Your task to perform on an android device: turn on bluetooth scan Image 0: 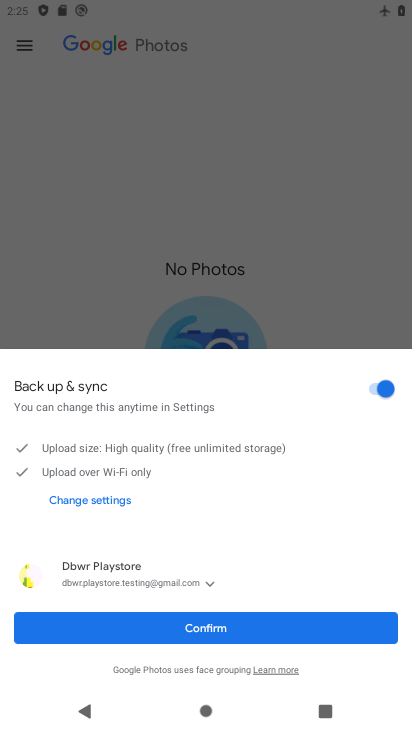
Step 0: press home button
Your task to perform on an android device: turn on bluetooth scan Image 1: 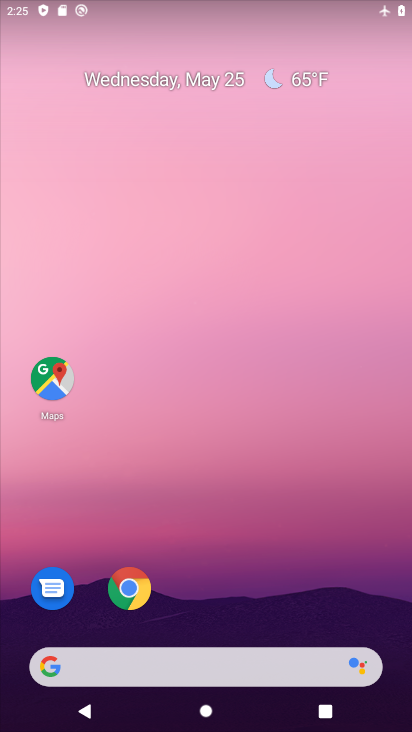
Step 1: drag from (217, 577) to (234, 162)
Your task to perform on an android device: turn on bluetooth scan Image 2: 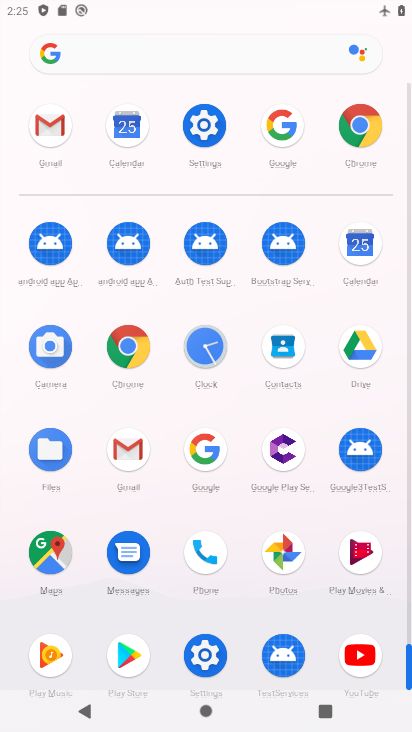
Step 2: click (198, 125)
Your task to perform on an android device: turn on bluetooth scan Image 3: 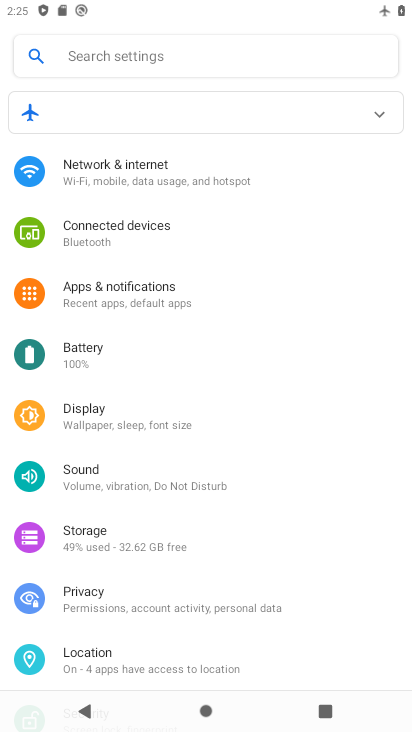
Step 3: drag from (140, 557) to (179, 299)
Your task to perform on an android device: turn on bluetooth scan Image 4: 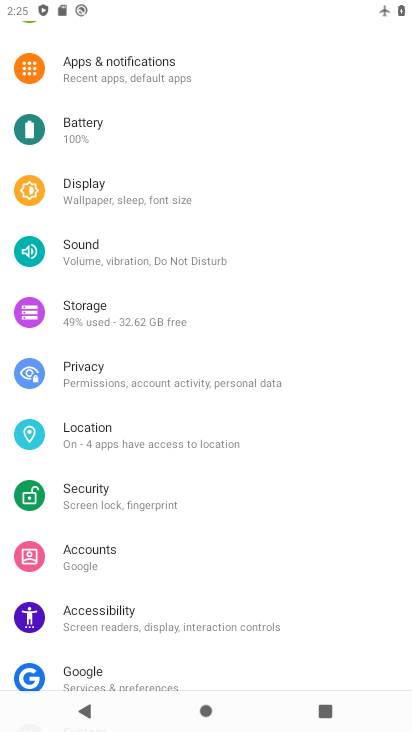
Step 4: click (143, 424)
Your task to perform on an android device: turn on bluetooth scan Image 5: 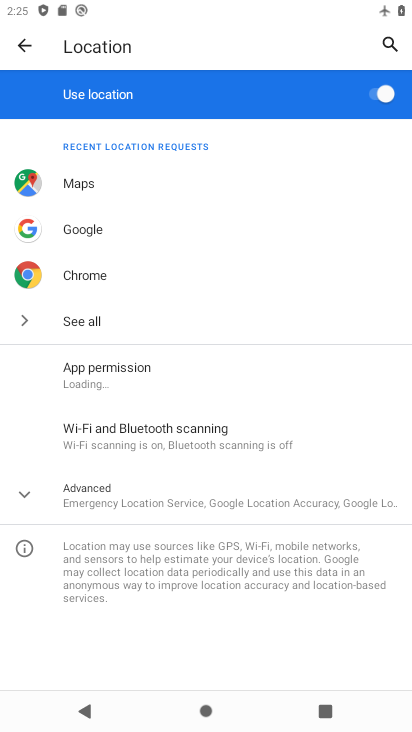
Step 5: click (153, 423)
Your task to perform on an android device: turn on bluetooth scan Image 6: 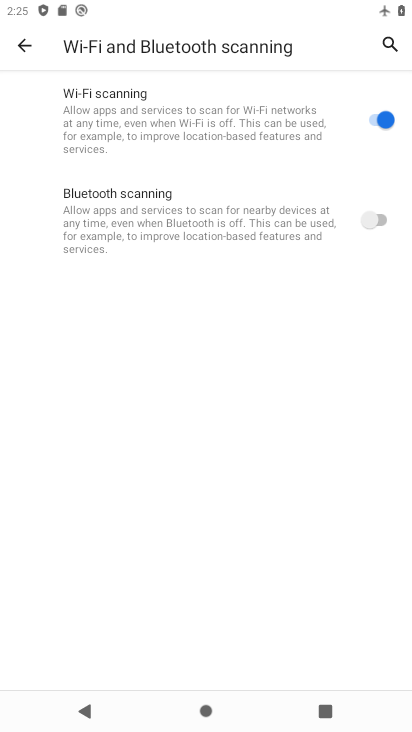
Step 6: click (384, 218)
Your task to perform on an android device: turn on bluetooth scan Image 7: 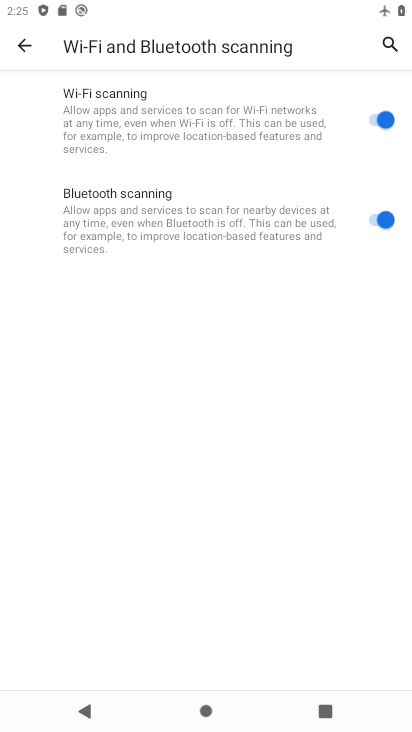
Step 7: task complete